Your task to perform on an android device: Go to CNN.com Image 0: 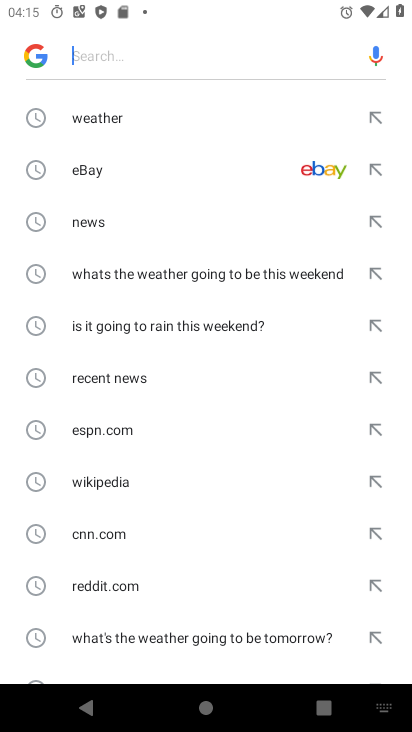
Step 0: click (118, 531)
Your task to perform on an android device: Go to CNN.com Image 1: 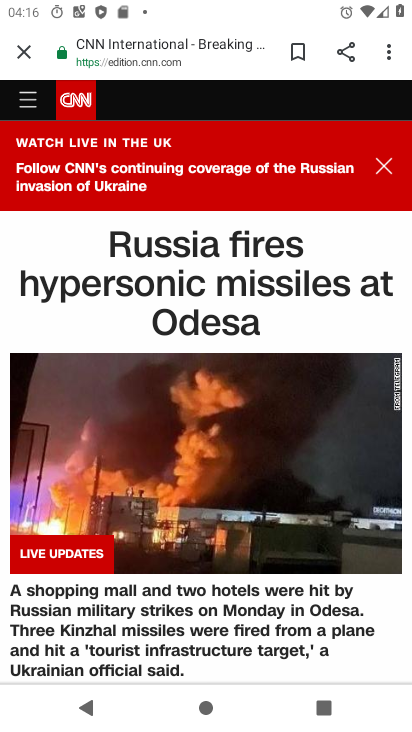
Step 1: task complete